Your task to perform on an android device: What's the weather today? Image 0: 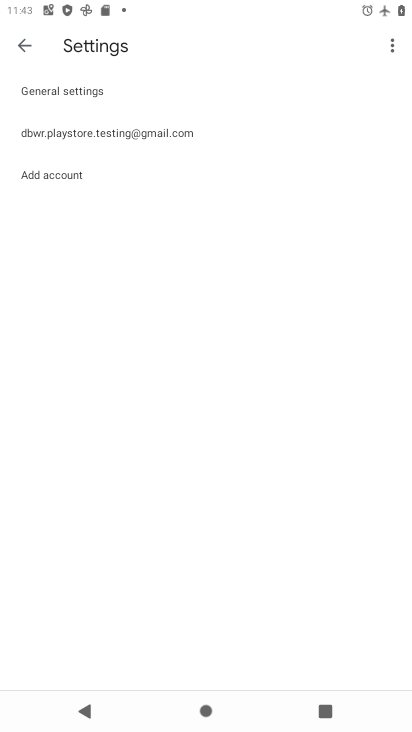
Step 0: press home button
Your task to perform on an android device: What's the weather today? Image 1: 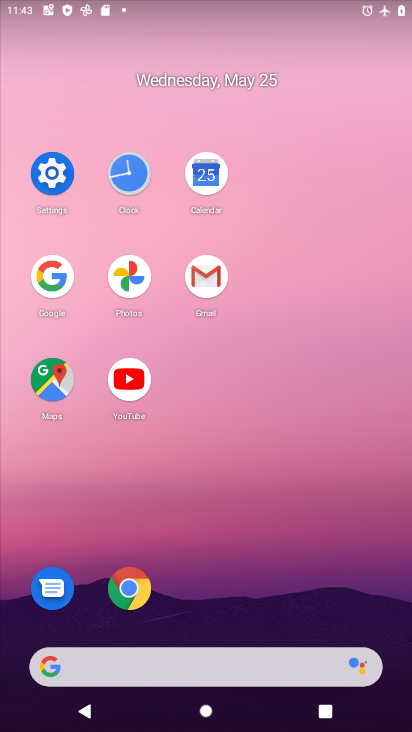
Step 1: click (68, 278)
Your task to perform on an android device: What's the weather today? Image 2: 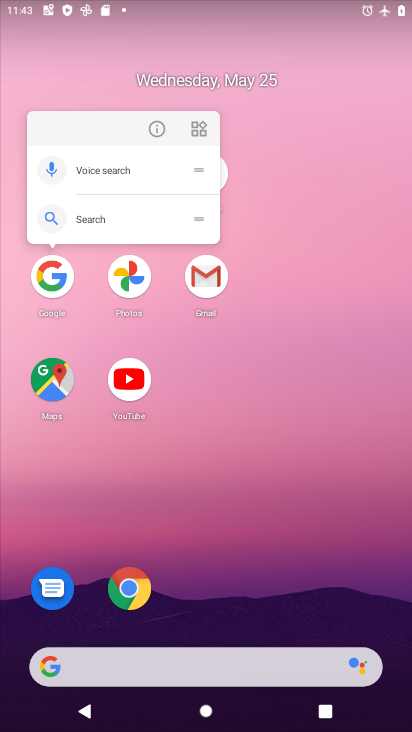
Step 2: click (68, 278)
Your task to perform on an android device: What's the weather today? Image 3: 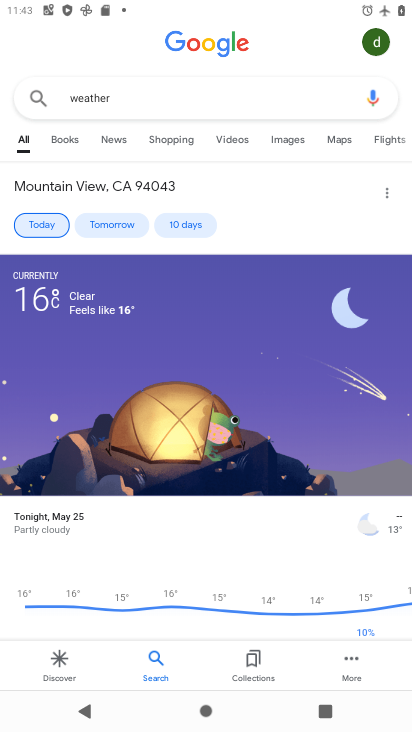
Step 3: task complete